Your task to perform on an android device: turn on location history Image 0: 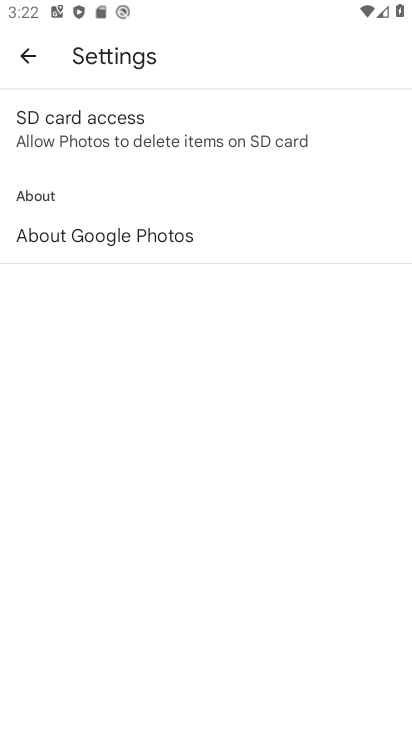
Step 0: click (20, 64)
Your task to perform on an android device: turn on location history Image 1: 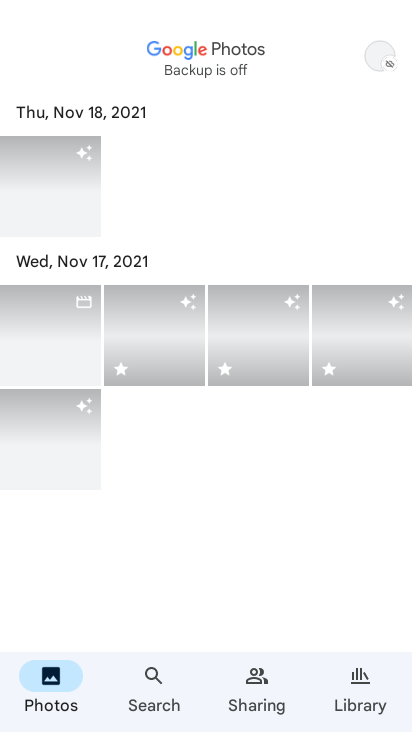
Step 1: press back button
Your task to perform on an android device: turn on location history Image 2: 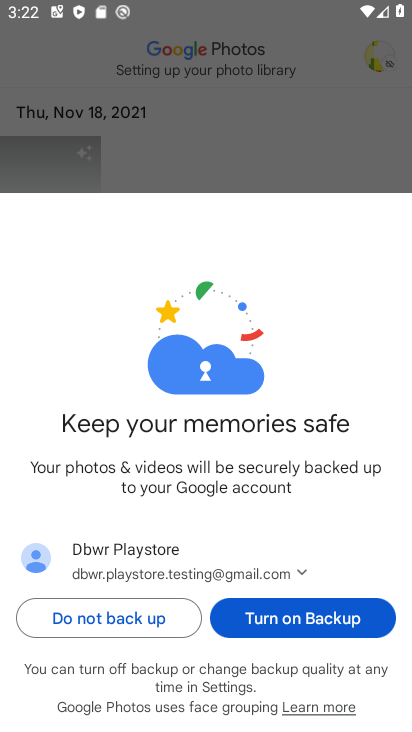
Step 2: press back button
Your task to perform on an android device: turn on location history Image 3: 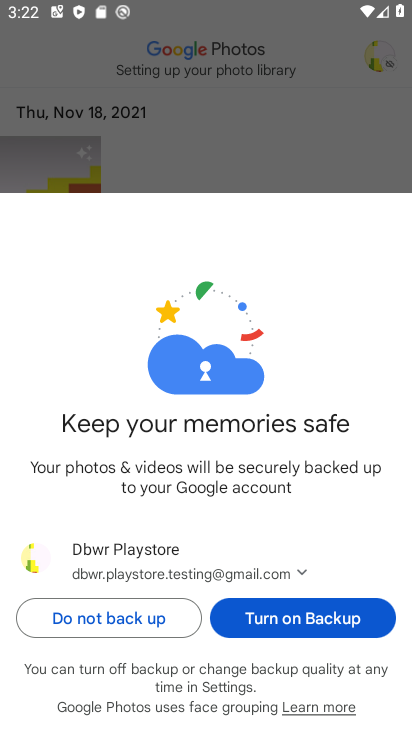
Step 3: press home button
Your task to perform on an android device: turn on location history Image 4: 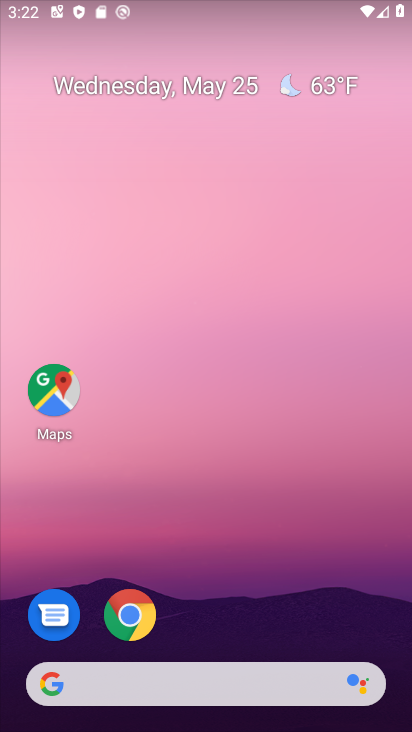
Step 4: click (137, 78)
Your task to perform on an android device: turn on location history Image 5: 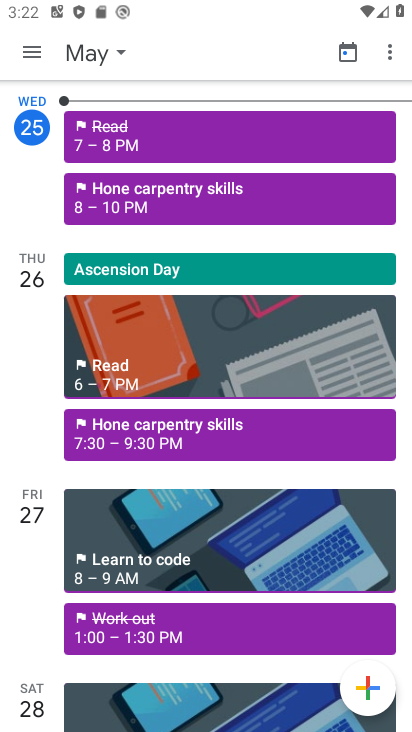
Step 5: press home button
Your task to perform on an android device: turn on location history Image 6: 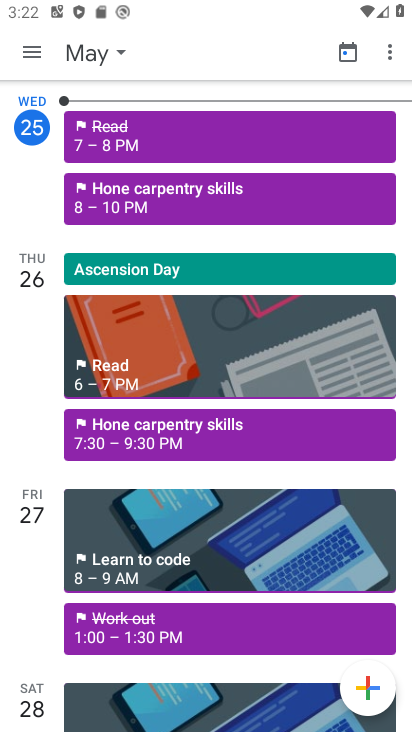
Step 6: press home button
Your task to perform on an android device: turn on location history Image 7: 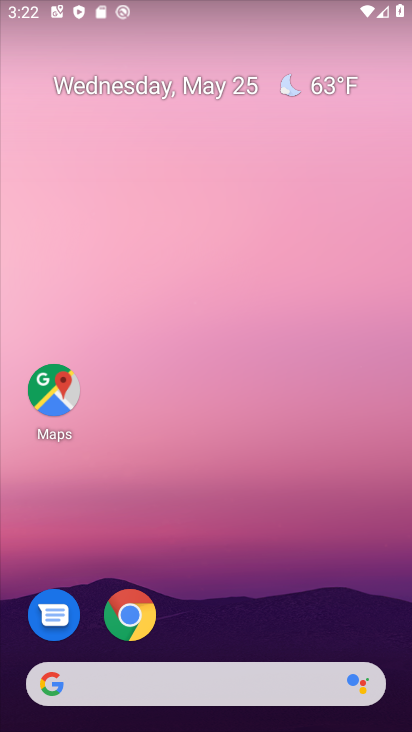
Step 7: drag from (232, 598) to (181, 205)
Your task to perform on an android device: turn on location history Image 8: 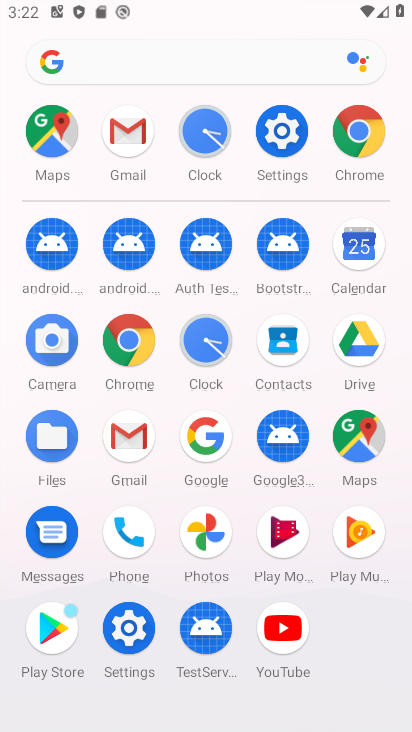
Step 8: click (276, 133)
Your task to perform on an android device: turn on location history Image 9: 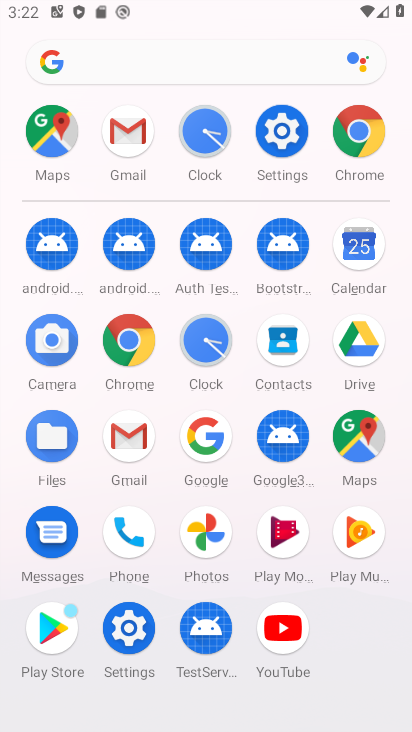
Step 9: click (276, 132)
Your task to perform on an android device: turn on location history Image 10: 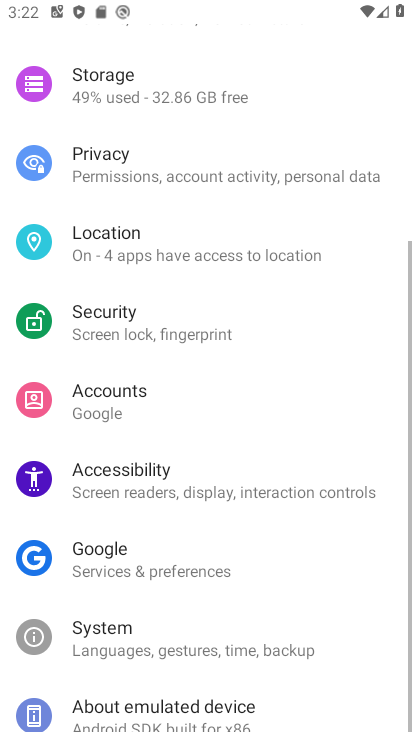
Step 10: click (277, 131)
Your task to perform on an android device: turn on location history Image 11: 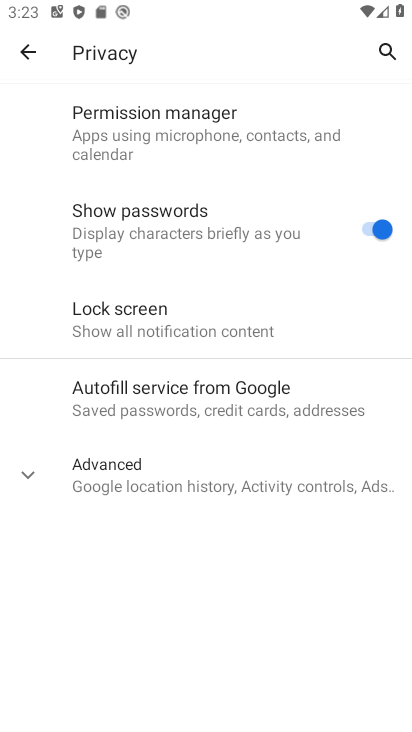
Step 11: click (26, 42)
Your task to perform on an android device: turn on location history Image 12: 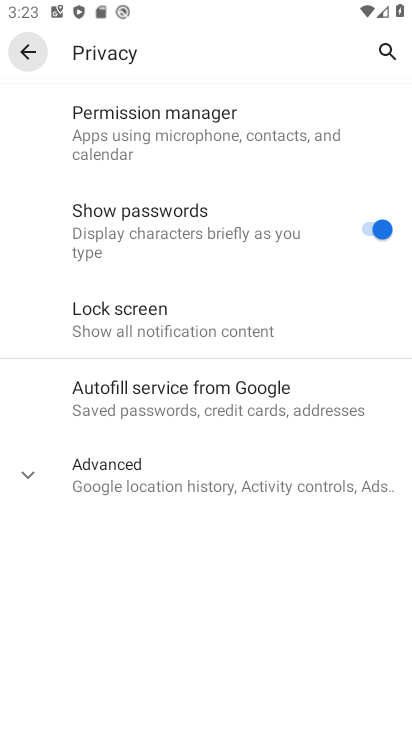
Step 12: click (26, 41)
Your task to perform on an android device: turn on location history Image 13: 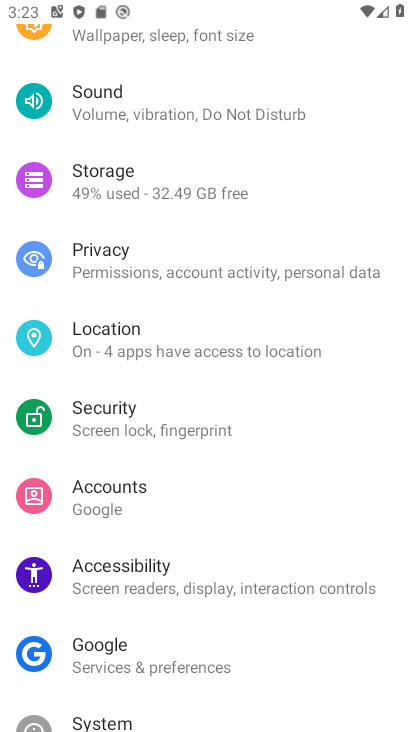
Step 13: click (117, 345)
Your task to perform on an android device: turn on location history Image 14: 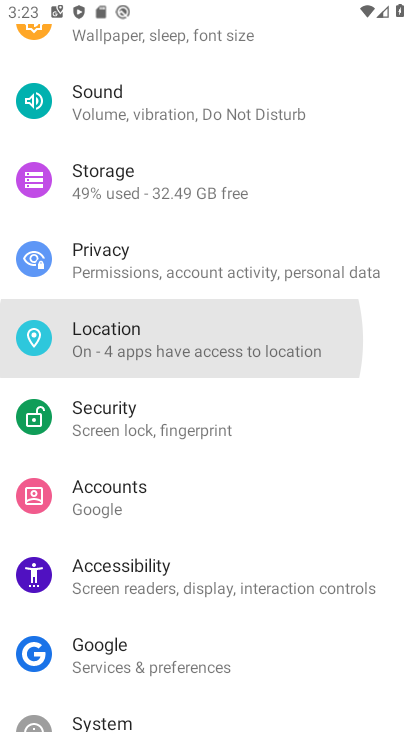
Step 14: click (122, 338)
Your task to perform on an android device: turn on location history Image 15: 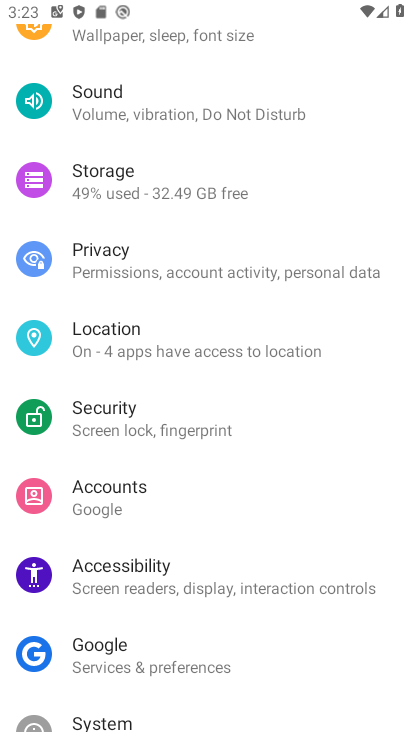
Step 15: click (122, 337)
Your task to perform on an android device: turn on location history Image 16: 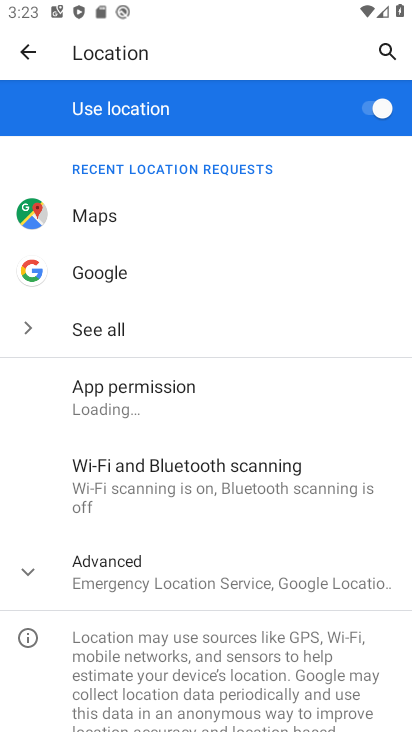
Step 16: click (115, 574)
Your task to perform on an android device: turn on location history Image 17: 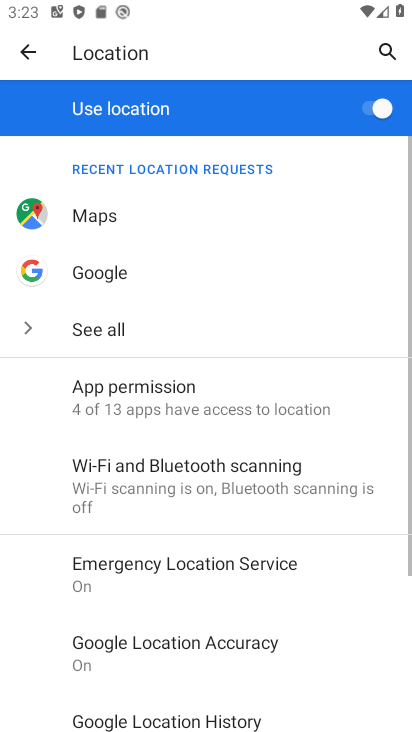
Step 17: drag from (185, 586) to (189, 249)
Your task to perform on an android device: turn on location history Image 18: 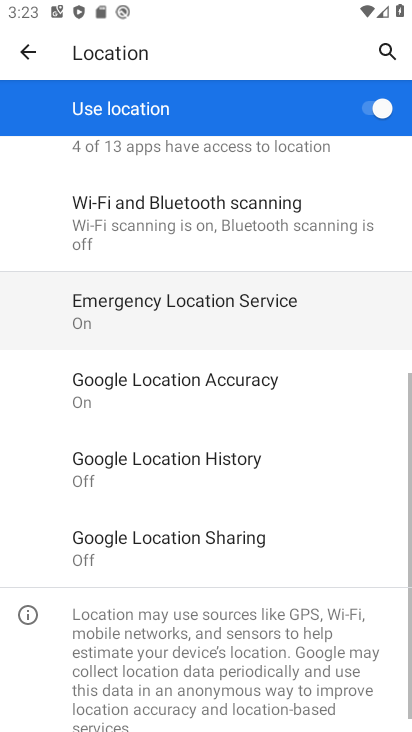
Step 18: drag from (215, 546) to (207, 249)
Your task to perform on an android device: turn on location history Image 19: 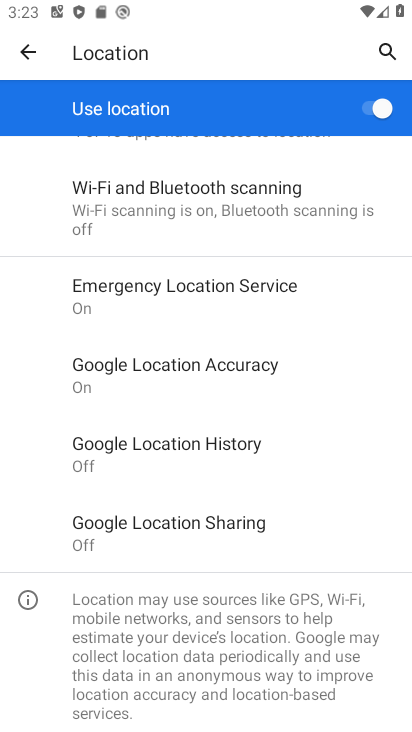
Step 19: click (205, 435)
Your task to perform on an android device: turn on location history Image 20: 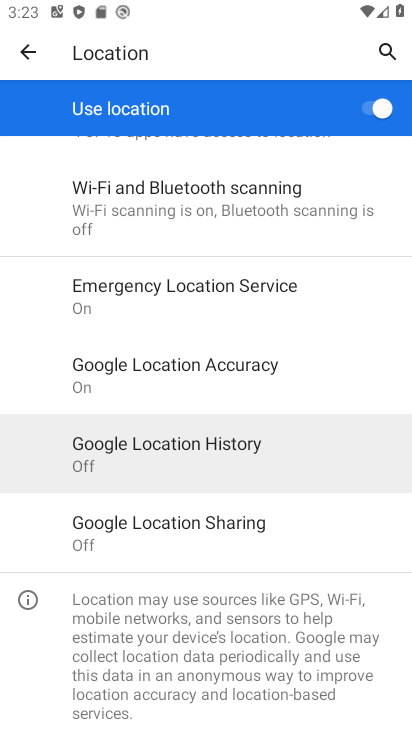
Step 20: click (205, 435)
Your task to perform on an android device: turn on location history Image 21: 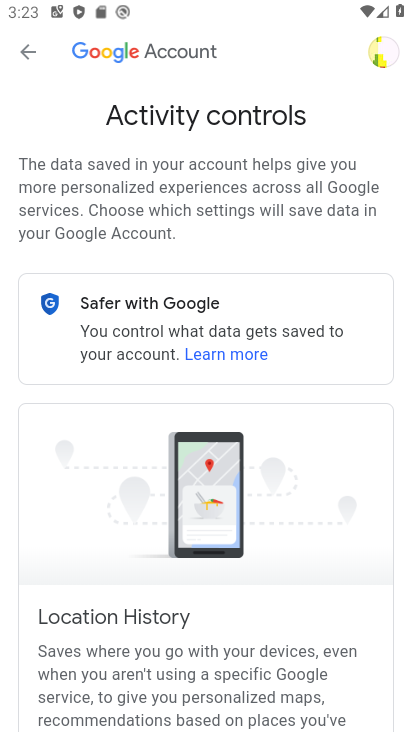
Step 21: task complete